Your task to perform on an android device: toggle location history Image 0: 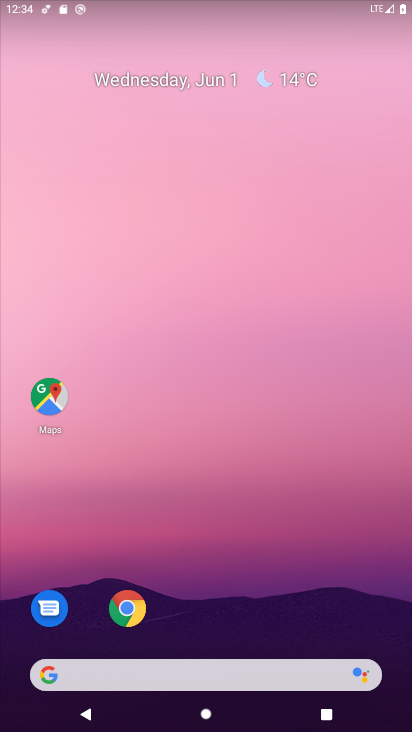
Step 0: drag from (216, 635) to (284, 225)
Your task to perform on an android device: toggle location history Image 1: 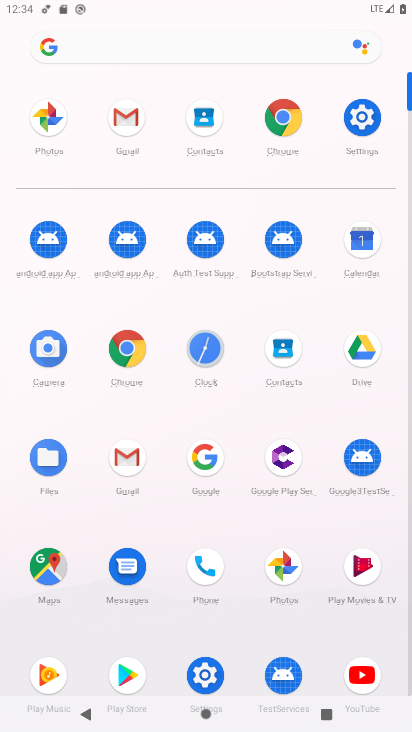
Step 1: click (361, 131)
Your task to perform on an android device: toggle location history Image 2: 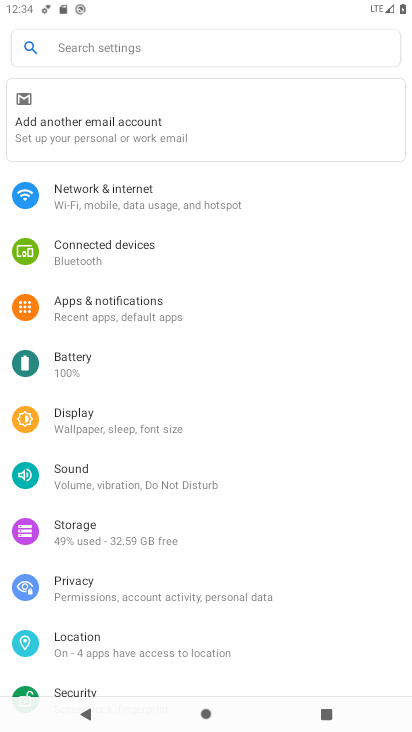
Step 2: click (114, 657)
Your task to perform on an android device: toggle location history Image 3: 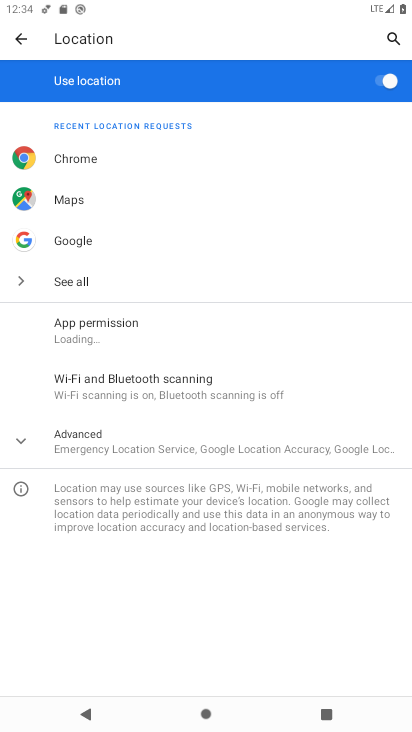
Step 3: click (99, 440)
Your task to perform on an android device: toggle location history Image 4: 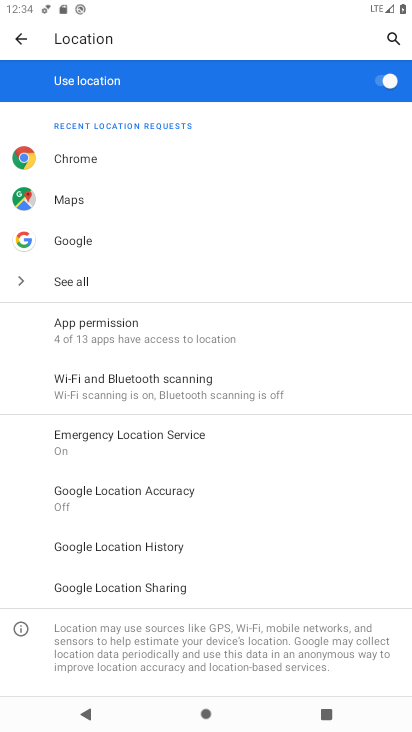
Step 4: click (130, 542)
Your task to perform on an android device: toggle location history Image 5: 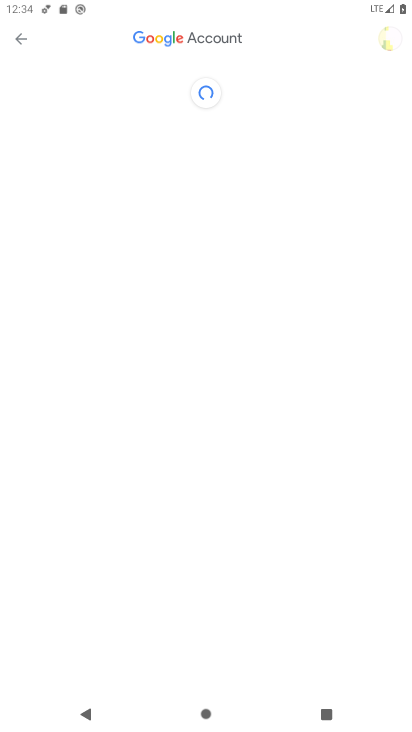
Step 5: drag from (203, 516) to (205, 345)
Your task to perform on an android device: toggle location history Image 6: 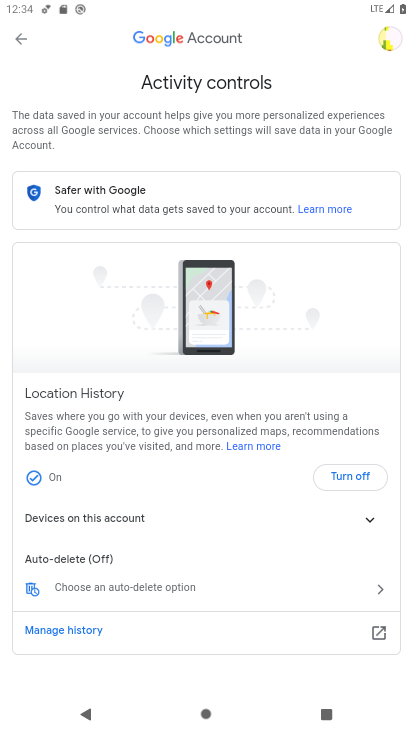
Step 6: click (343, 471)
Your task to perform on an android device: toggle location history Image 7: 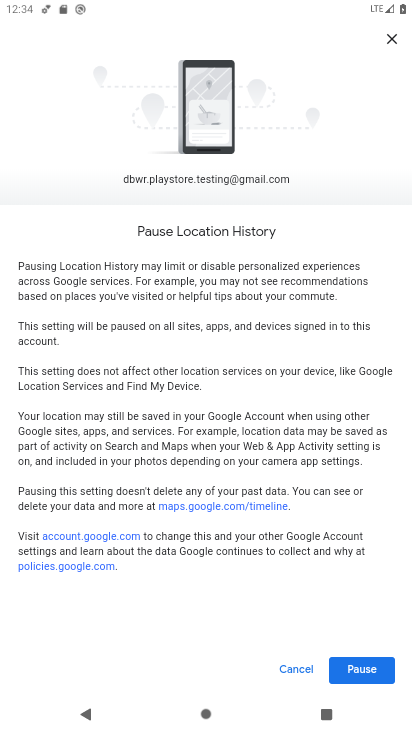
Step 7: click (374, 671)
Your task to perform on an android device: toggle location history Image 8: 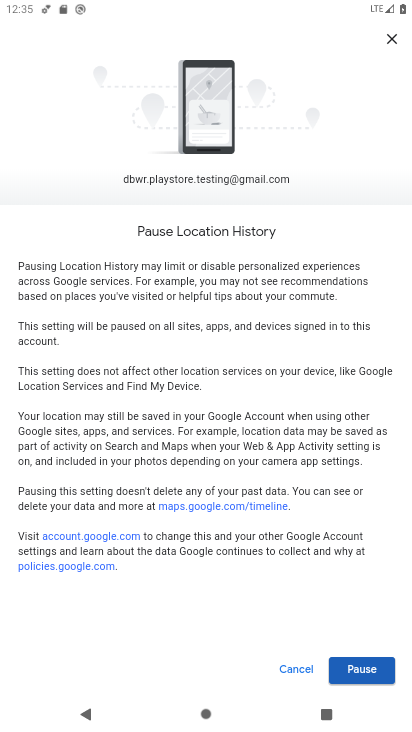
Step 8: click (372, 669)
Your task to perform on an android device: toggle location history Image 9: 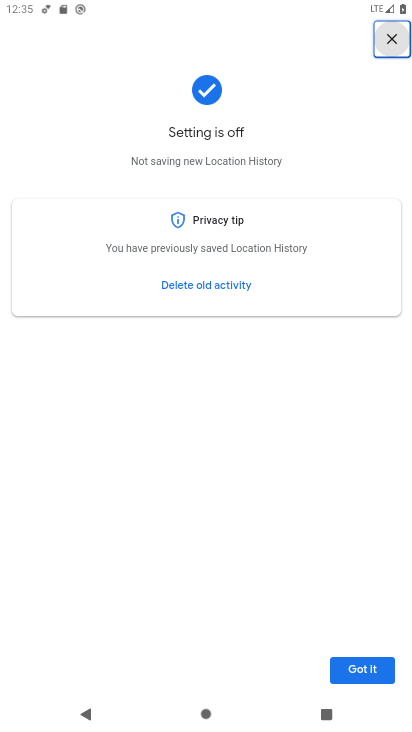
Step 9: click (371, 667)
Your task to perform on an android device: toggle location history Image 10: 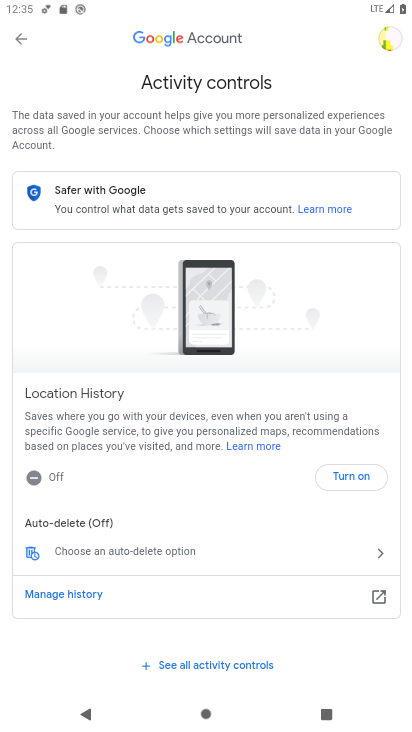
Step 10: task complete